Your task to perform on an android device: See recent photos Image 0: 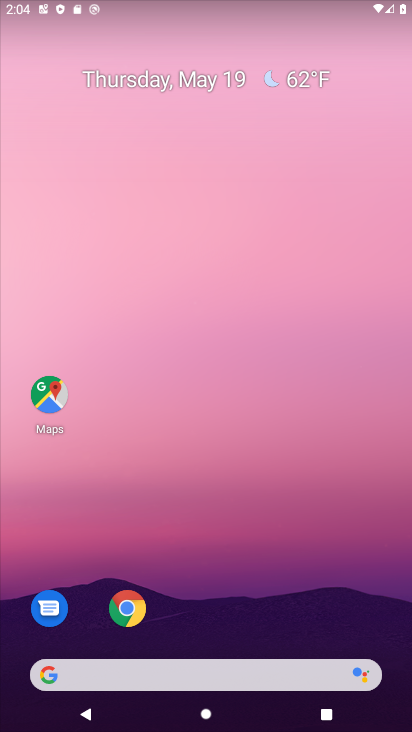
Step 0: drag from (222, 533) to (180, 36)
Your task to perform on an android device: See recent photos Image 1: 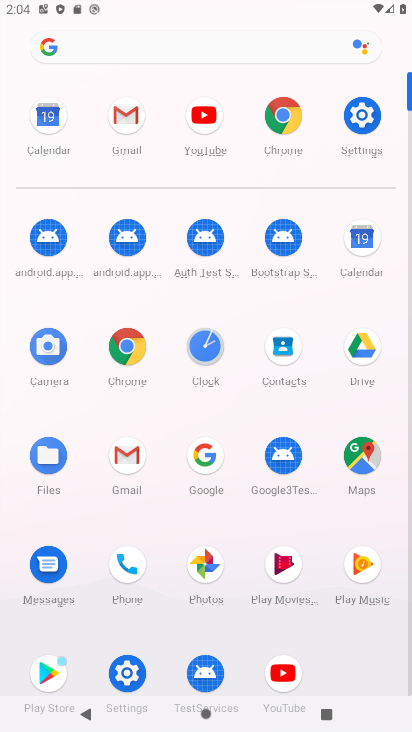
Step 1: click (216, 565)
Your task to perform on an android device: See recent photos Image 2: 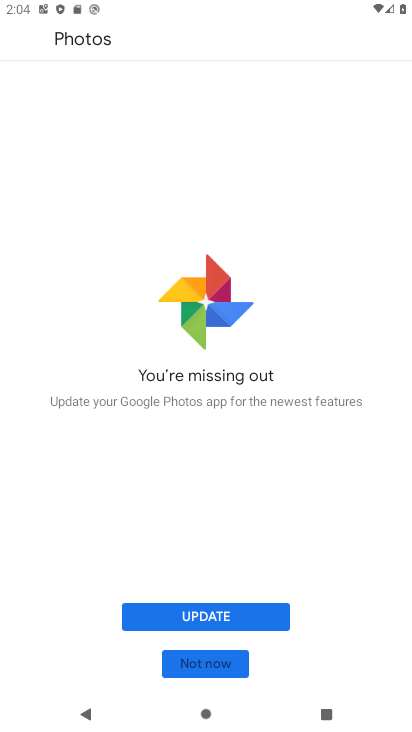
Step 2: click (241, 626)
Your task to perform on an android device: See recent photos Image 3: 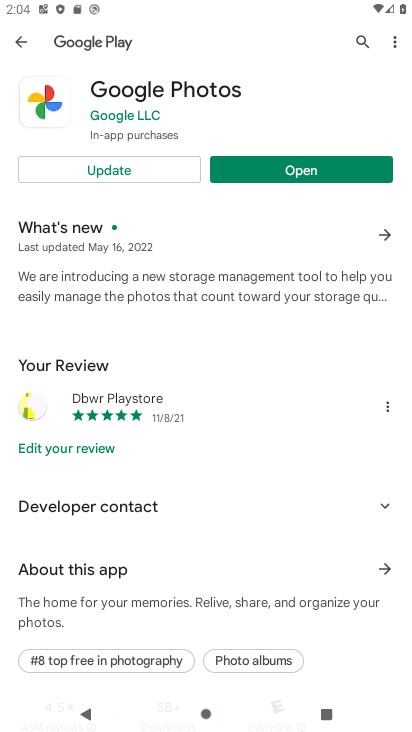
Step 3: click (160, 174)
Your task to perform on an android device: See recent photos Image 4: 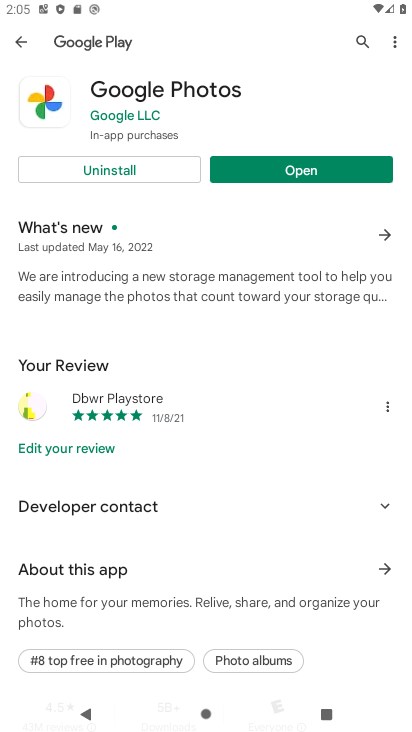
Step 4: click (247, 176)
Your task to perform on an android device: See recent photos Image 5: 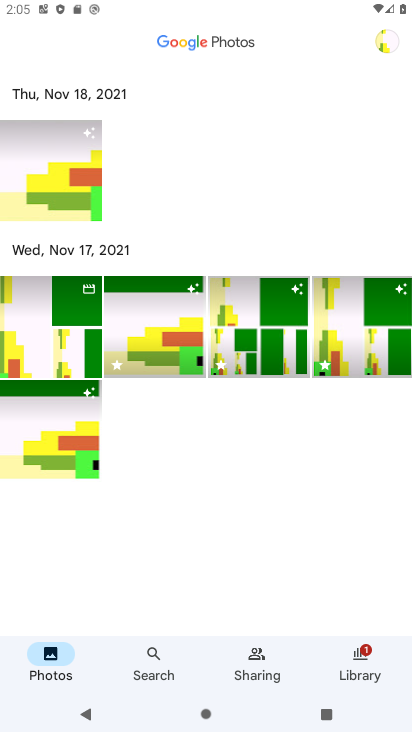
Step 5: task complete